Your task to perform on an android device: Open the map Image 0: 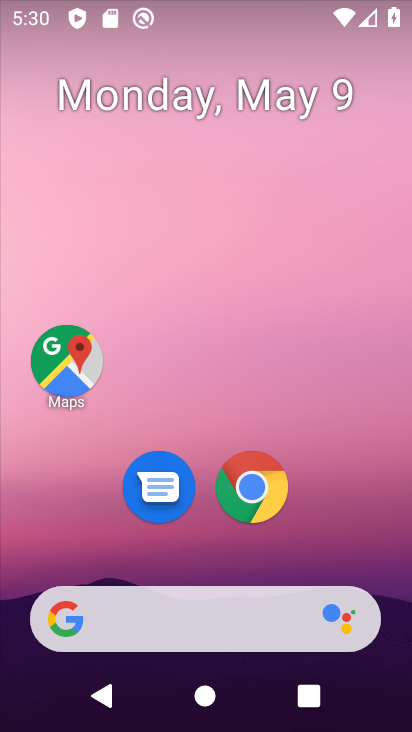
Step 0: drag from (331, 520) to (171, 14)
Your task to perform on an android device: Open the map Image 1: 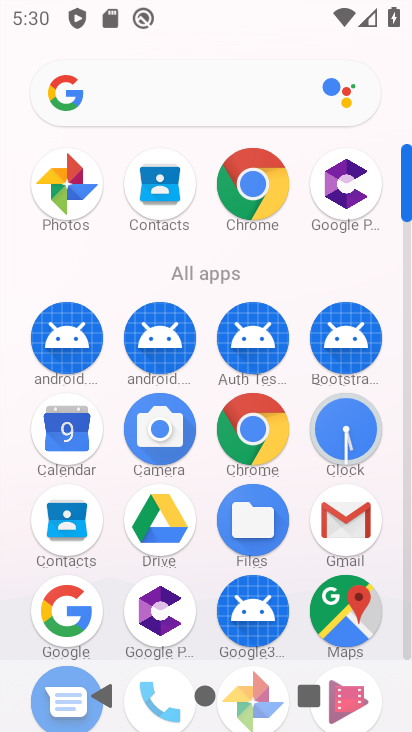
Step 1: drag from (307, 644) to (307, 321)
Your task to perform on an android device: Open the map Image 2: 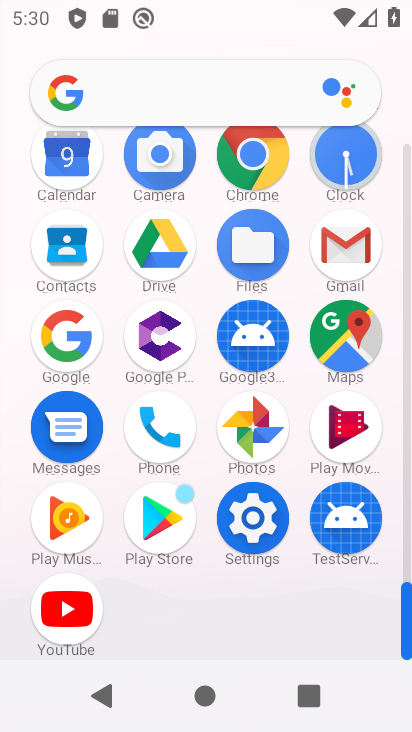
Step 2: click (364, 367)
Your task to perform on an android device: Open the map Image 3: 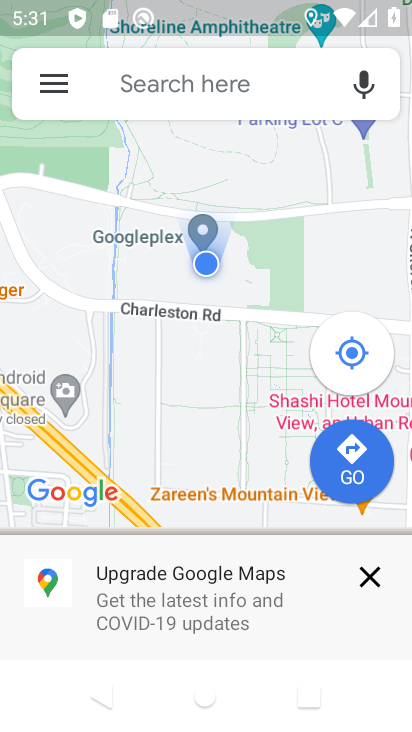
Step 3: task complete